Your task to perform on an android device: Open Google Image 0: 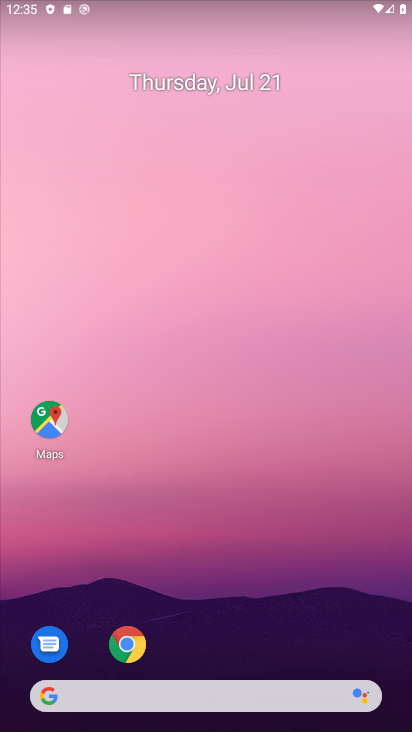
Step 0: drag from (235, 672) to (231, 99)
Your task to perform on an android device: Open Google Image 1: 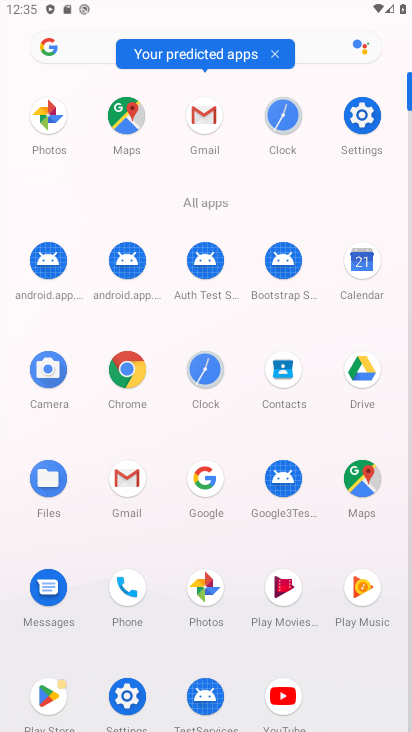
Step 1: click (210, 480)
Your task to perform on an android device: Open Google Image 2: 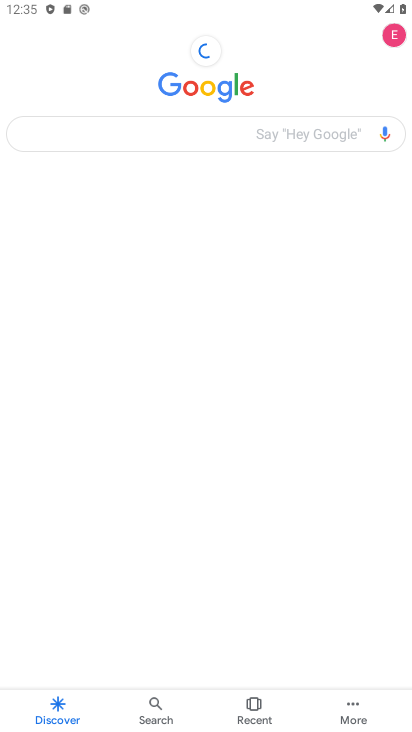
Step 2: click (225, 137)
Your task to perform on an android device: Open Google Image 3: 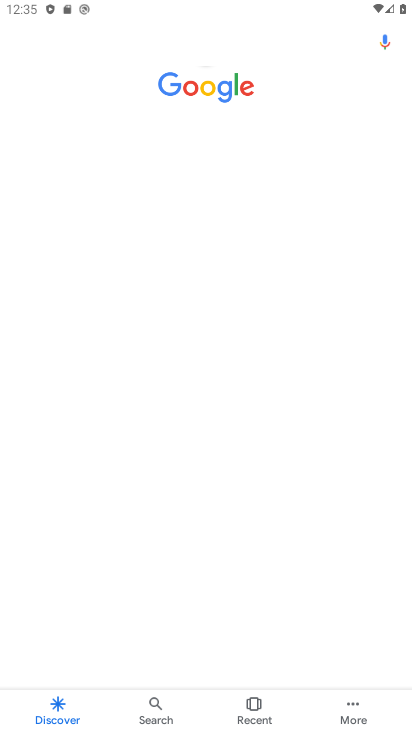
Step 3: task complete